Your task to perform on an android device: set the timer Image 0: 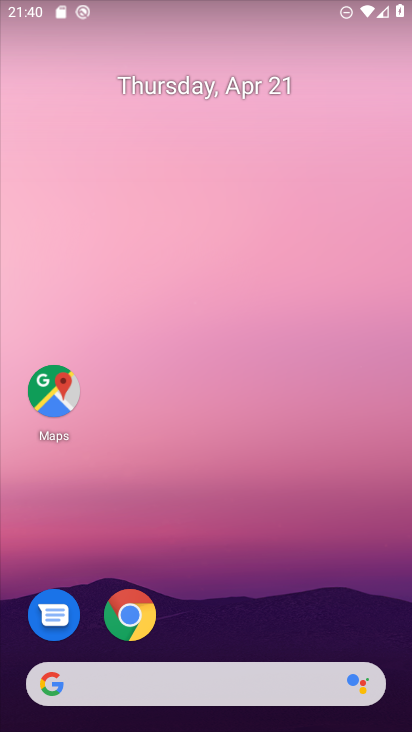
Step 0: click (259, 2)
Your task to perform on an android device: set the timer Image 1: 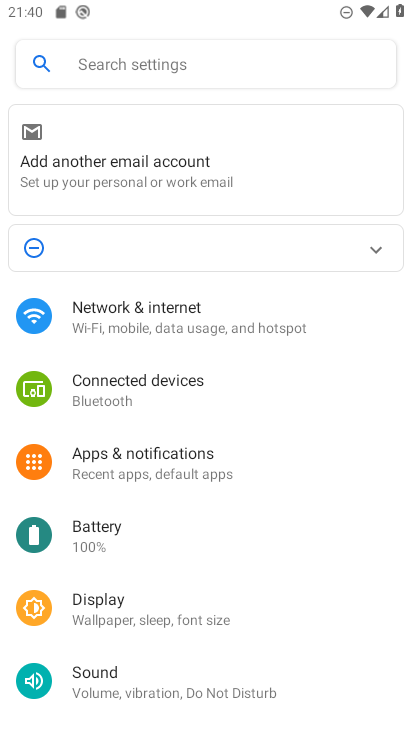
Step 1: press home button
Your task to perform on an android device: set the timer Image 2: 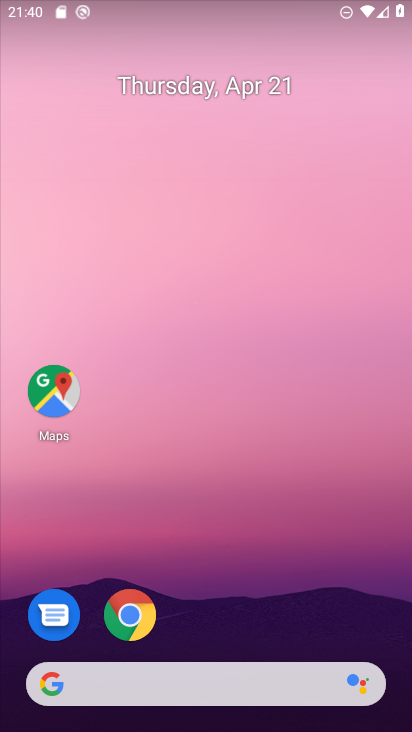
Step 2: drag from (211, 612) to (314, 29)
Your task to perform on an android device: set the timer Image 3: 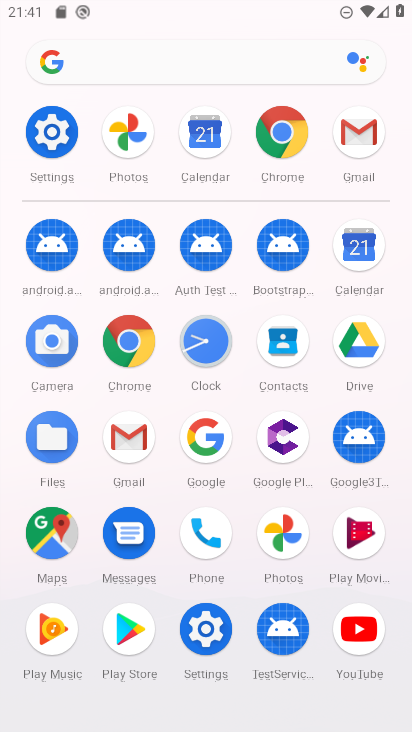
Step 3: click (205, 348)
Your task to perform on an android device: set the timer Image 4: 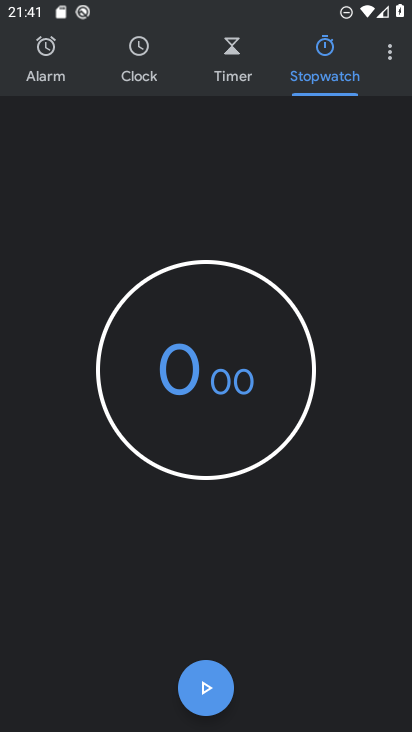
Step 4: click (396, 49)
Your task to perform on an android device: set the timer Image 5: 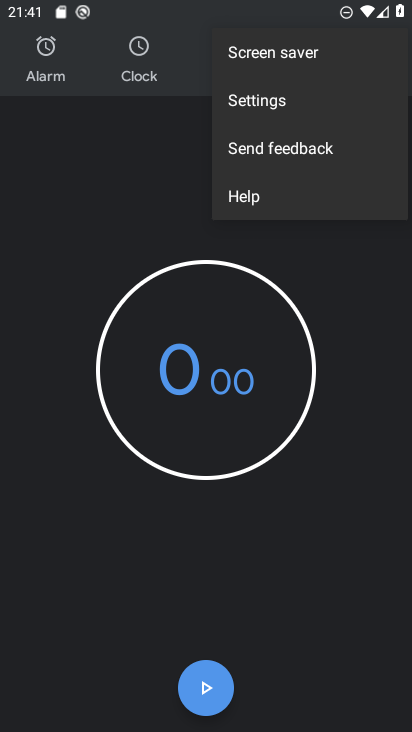
Step 5: click (300, 105)
Your task to perform on an android device: set the timer Image 6: 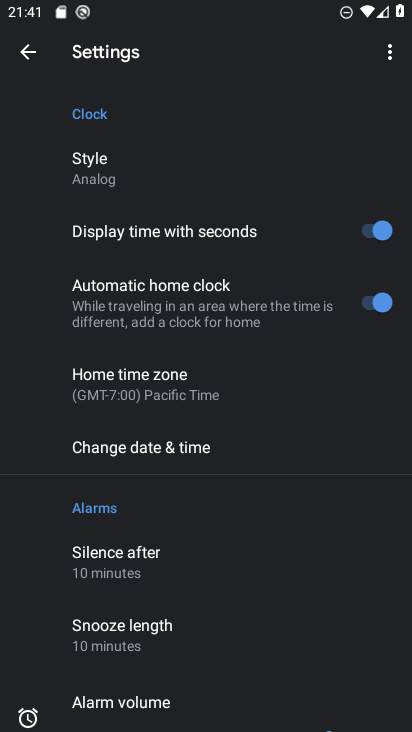
Step 6: drag from (193, 489) to (260, 131)
Your task to perform on an android device: set the timer Image 7: 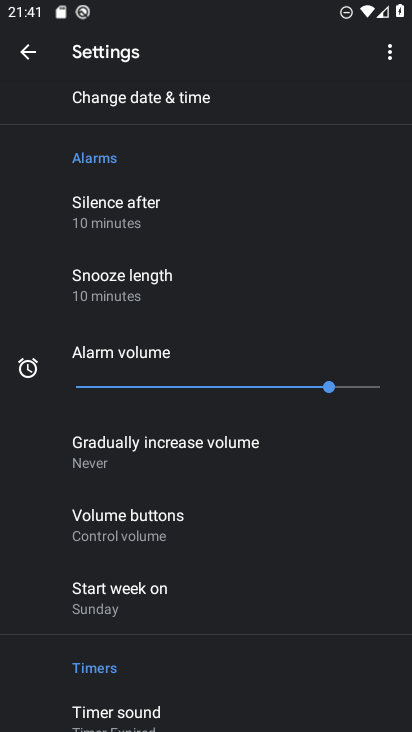
Step 7: drag from (189, 126) to (271, 583)
Your task to perform on an android device: set the timer Image 8: 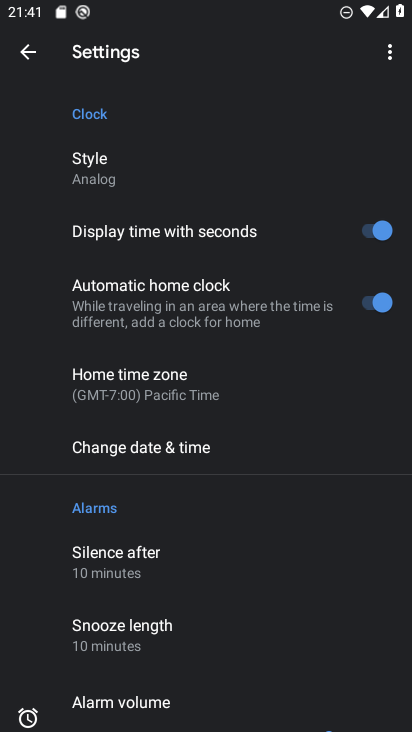
Step 8: click (31, 56)
Your task to perform on an android device: set the timer Image 9: 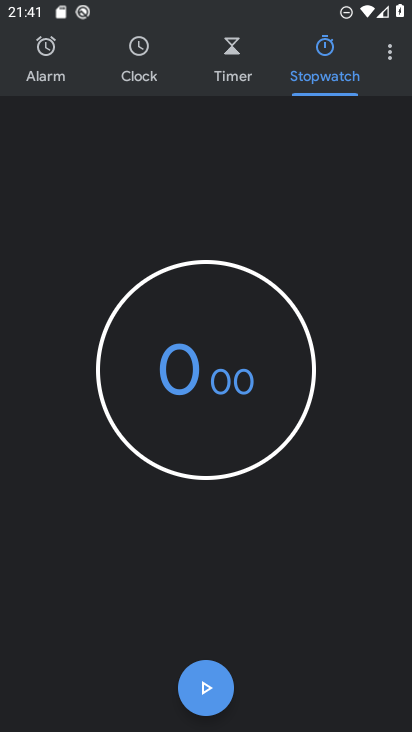
Step 9: click (217, 56)
Your task to perform on an android device: set the timer Image 10: 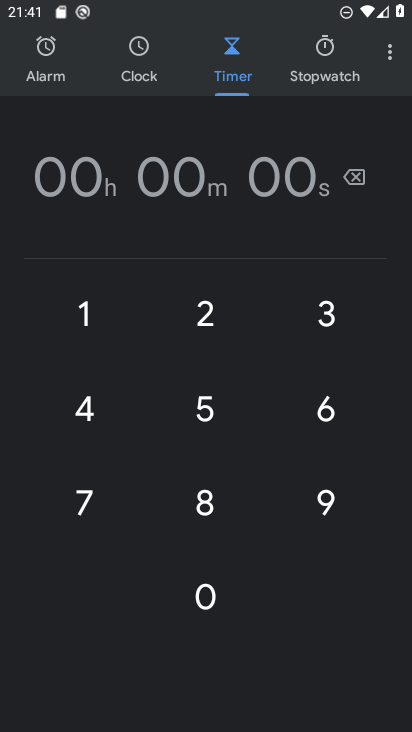
Step 10: click (190, 322)
Your task to perform on an android device: set the timer Image 11: 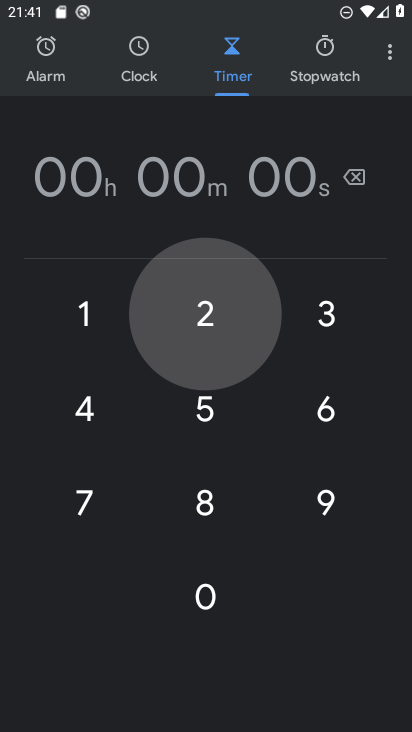
Step 11: click (339, 331)
Your task to perform on an android device: set the timer Image 12: 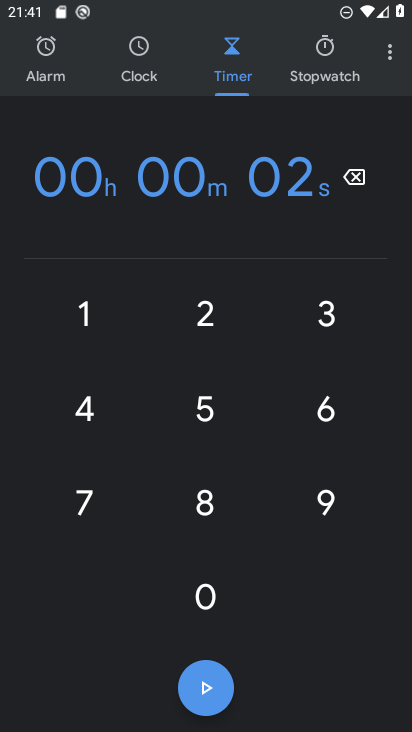
Step 12: click (224, 405)
Your task to perform on an android device: set the timer Image 13: 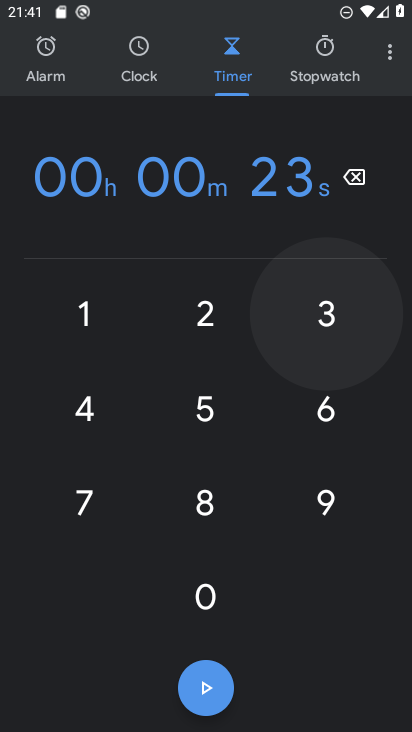
Step 13: click (314, 407)
Your task to perform on an android device: set the timer Image 14: 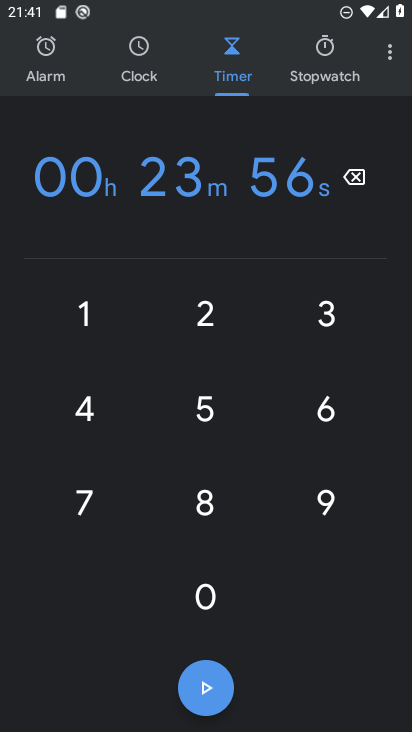
Step 14: click (204, 706)
Your task to perform on an android device: set the timer Image 15: 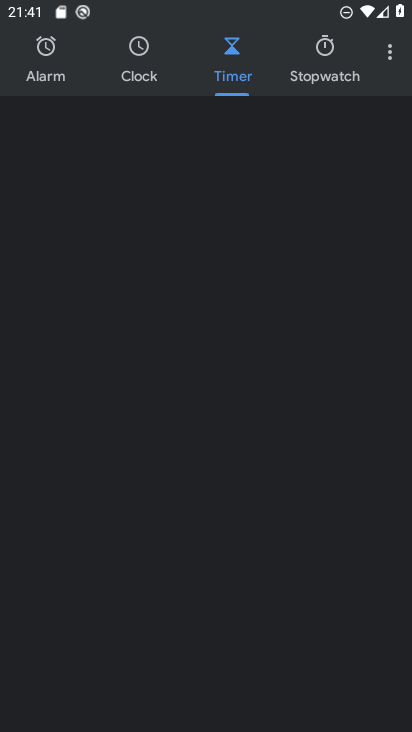
Step 15: task complete